Your task to perform on an android device: read, delete, or share a saved page in the chrome app Image 0: 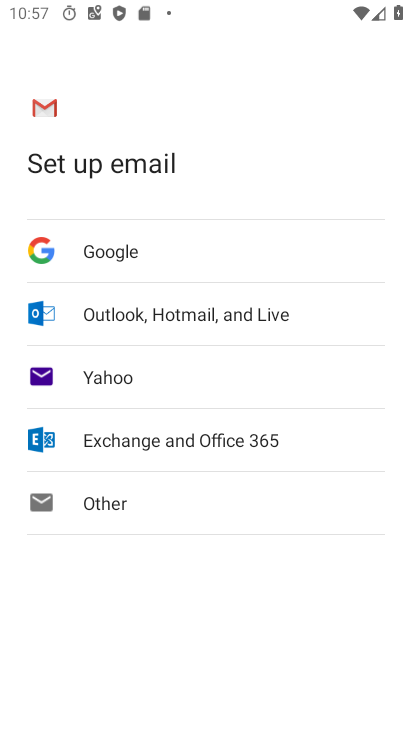
Step 0: task impossible